Your task to perform on an android device: refresh tabs in the chrome app Image 0: 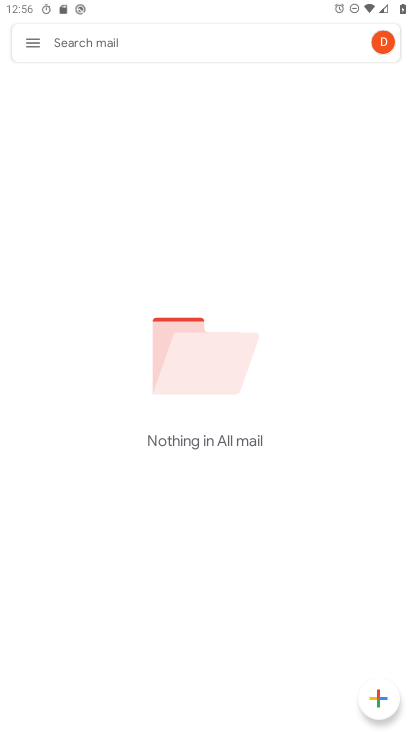
Step 0: press home button
Your task to perform on an android device: refresh tabs in the chrome app Image 1: 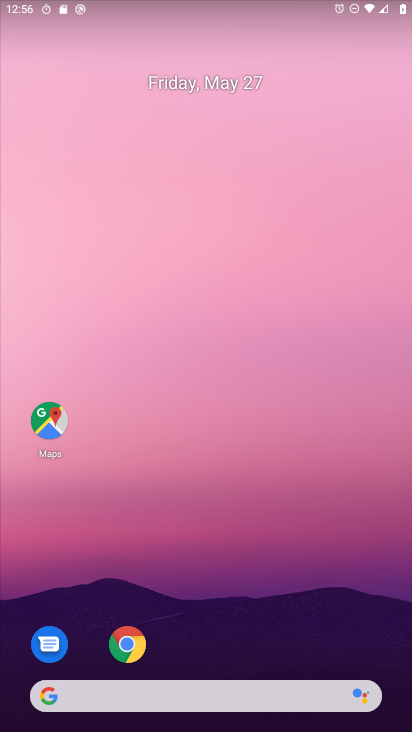
Step 1: click (121, 638)
Your task to perform on an android device: refresh tabs in the chrome app Image 2: 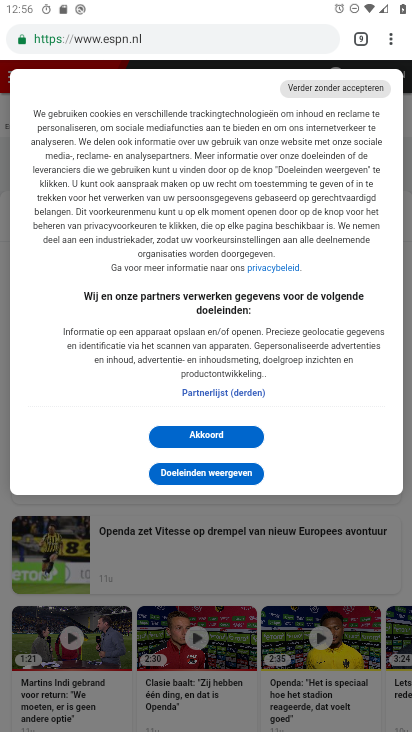
Step 2: click (398, 42)
Your task to perform on an android device: refresh tabs in the chrome app Image 3: 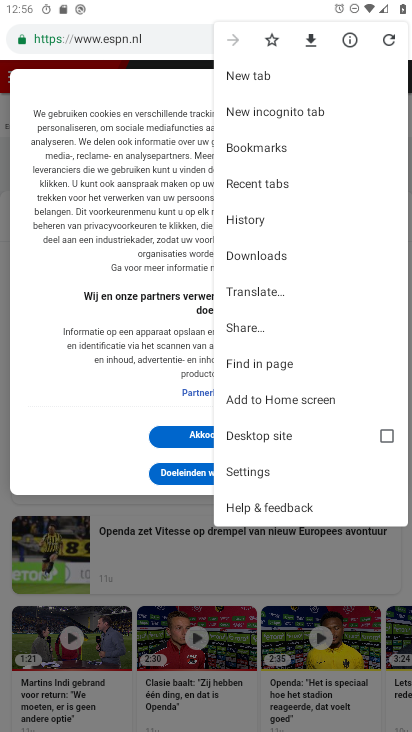
Step 3: click (383, 42)
Your task to perform on an android device: refresh tabs in the chrome app Image 4: 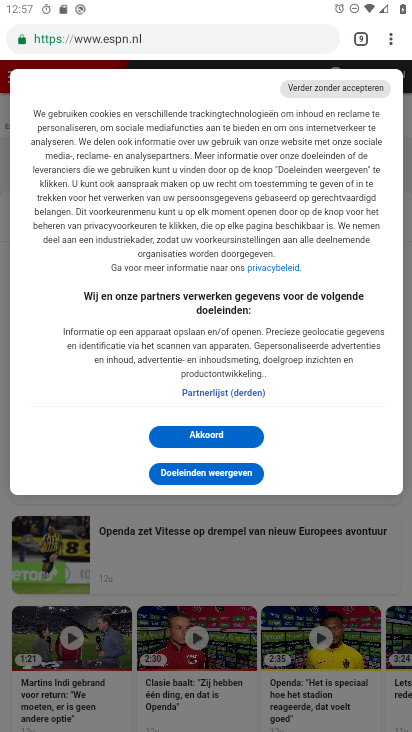
Step 4: task complete